Your task to perform on an android device: move a message to another label in the gmail app Image 0: 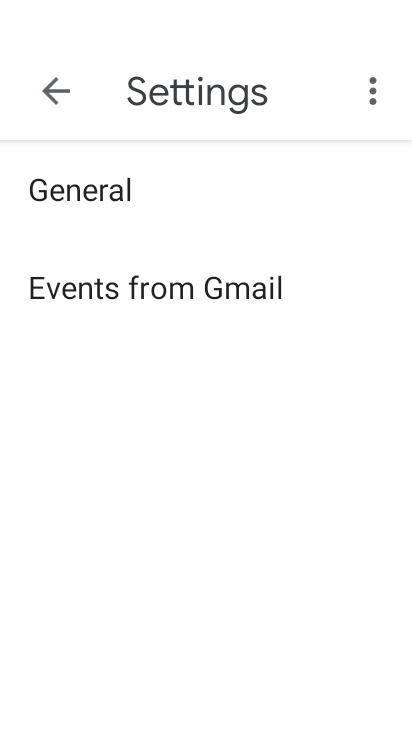
Step 0: press home button
Your task to perform on an android device: move a message to another label in the gmail app Image 1: 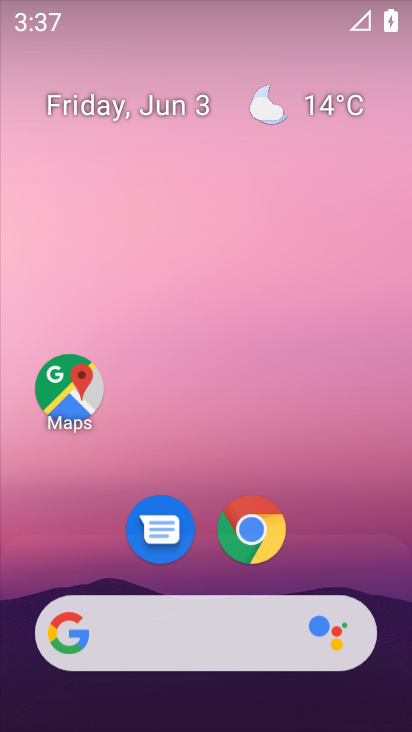
Step 1: drag from (377, 375) to (336, 0)
Your task to perform on an android device: move a message to another label in the gmail app Image 2: 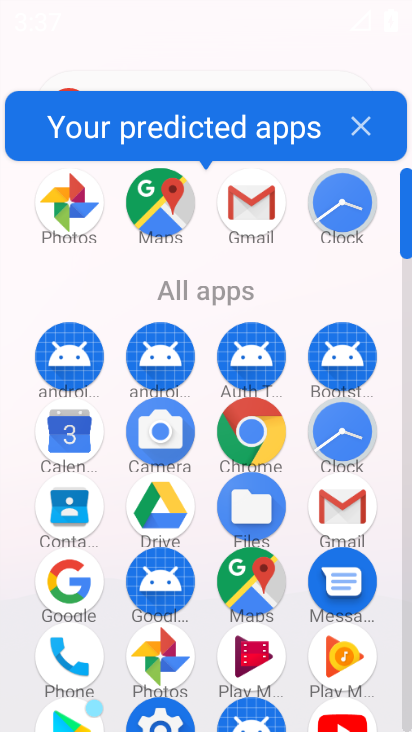
Step 2: click (347, 511)
Your task to perform on an android device: move a message to another label in the gmail app Image 3: 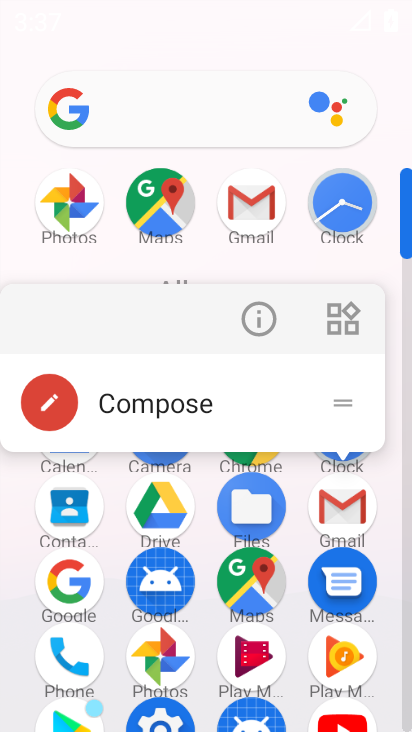
Step 3: click (344, 514)
Your task to perform on an android device: move a message to another label in the gmail app Image 4: 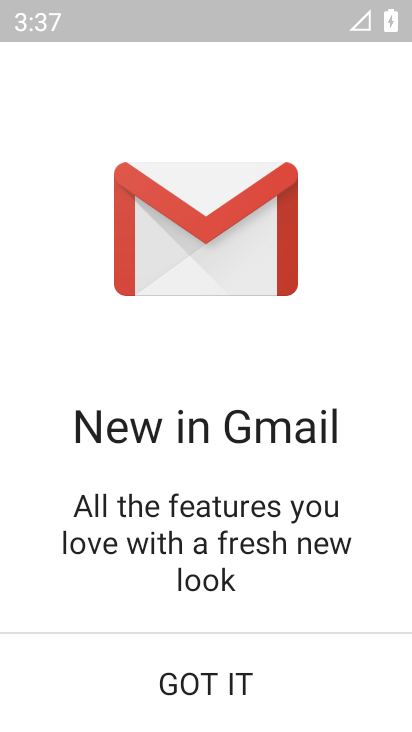
Step 4: click (181, 685)
Your task to perform on an android device: move a message to another label in the gmail app Image 5: 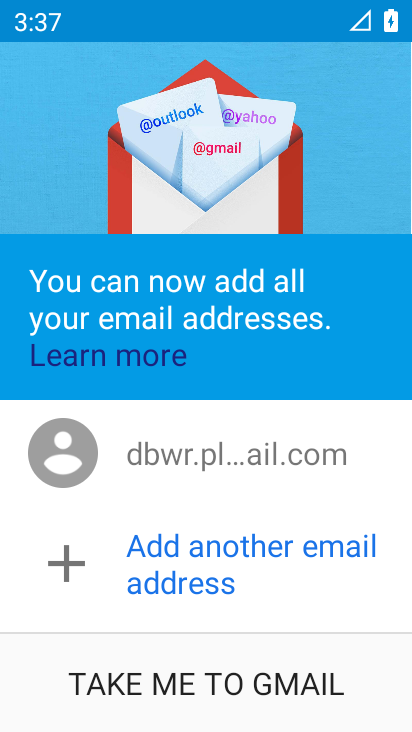
Step 5: click (181, 687)
Your task to perform on an android device: move a message to another label in the gmail app Image 6: 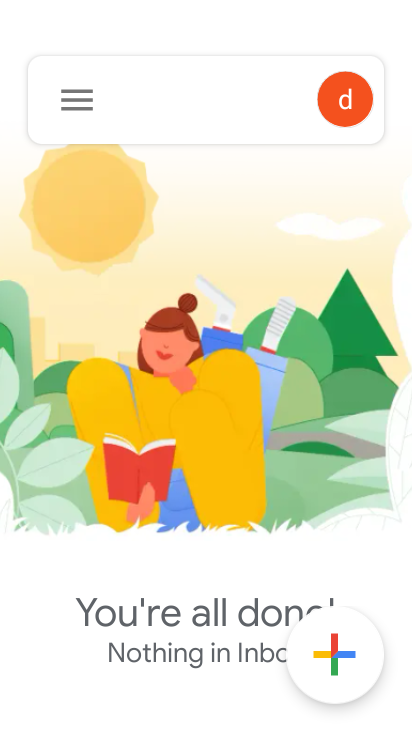
Step 6: task complete